Your task to perform on an android device: turn on the 12-hour format for clock Image 0: 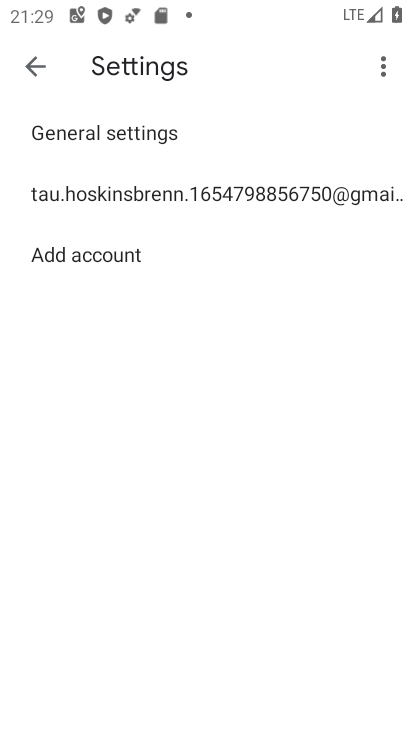
Step 0: press home button
Your task to perform on an android device: turn on the 12-hour format for clock Image 1: 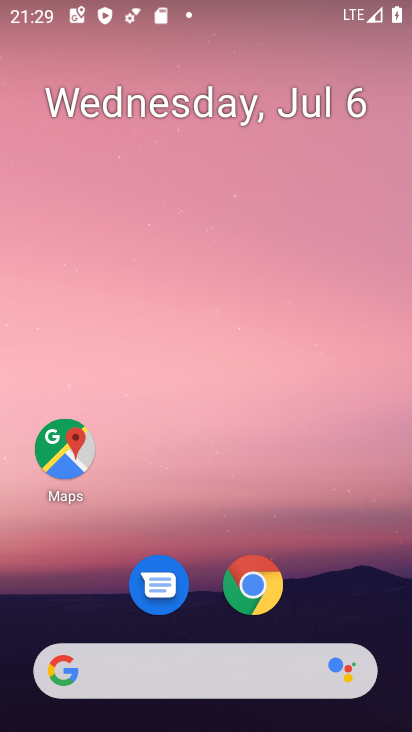
Step 1: drag from (199, 503) to (238, 0)
Your task to perform on an android device: turn on the 12-hour format for clock Image 2: 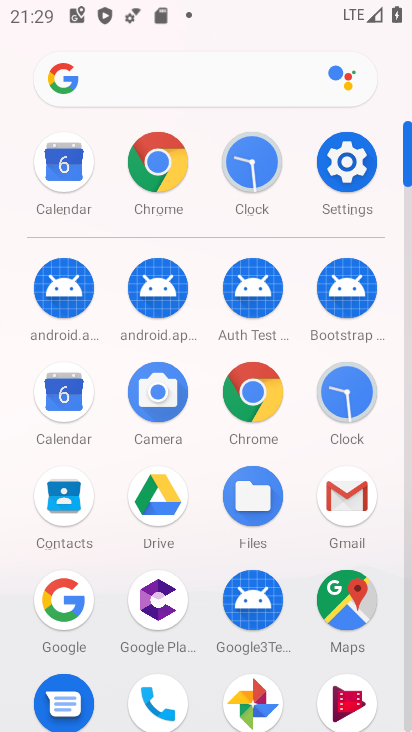
Step 2: click (362, 383)
Your task to perform on an android device: turn on the 12-hour format for clock Image 3: 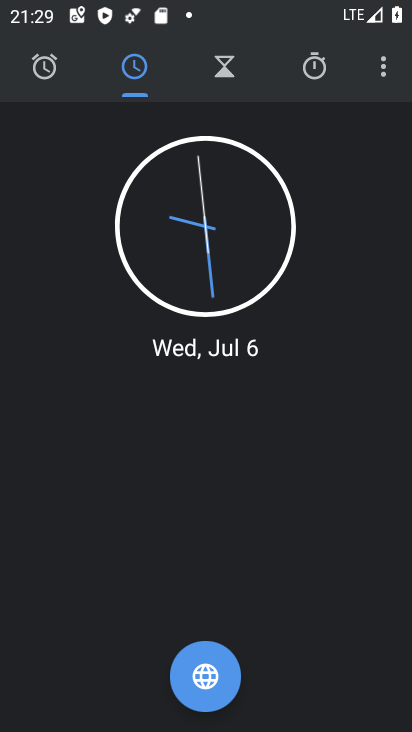
Step 3: click (386, 71)
Your task to perform on an android device: turn on the 12-hour format for clock Image 4: 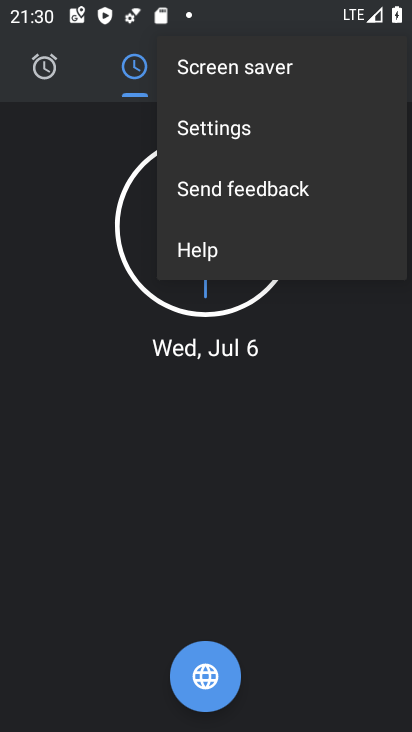
Step 4: click (303, 127)
Your task to perform on an android device: turn on the 12-hour format for clock Image 5: 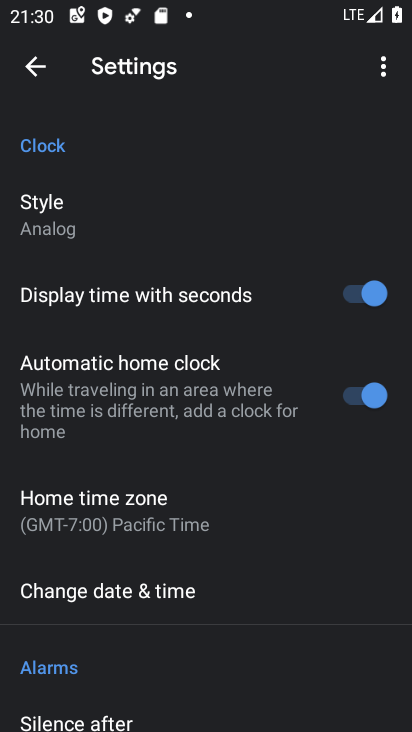
Step 5: drag from (285, 560) to (328, 310)
Your task to perform on an android device: turn on the 12-hour format for clock Image 6: 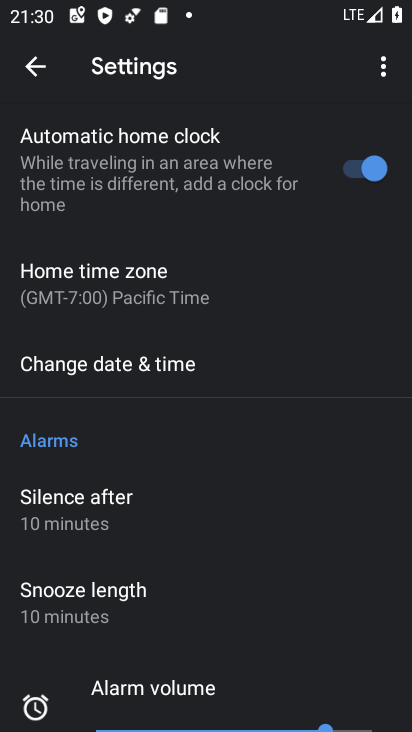
Step 6: click (250, 375)
Your task to perform on an android device: turn on the 12-hour format for clock Image 7: 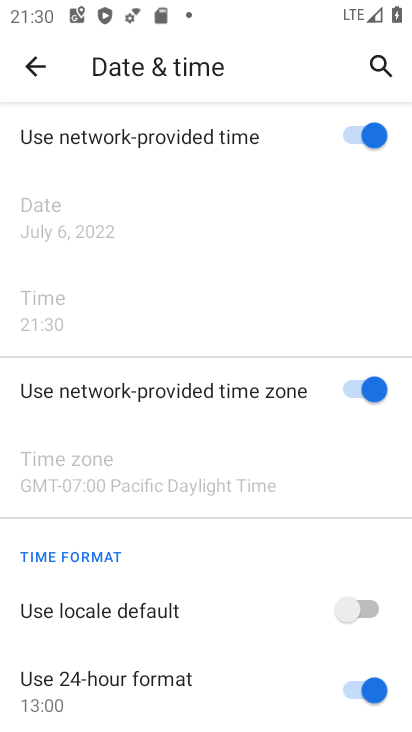
Step 7: click (350, 689)
Your task to perform on an android device: turn on the 12-hour format for clock Image 8: 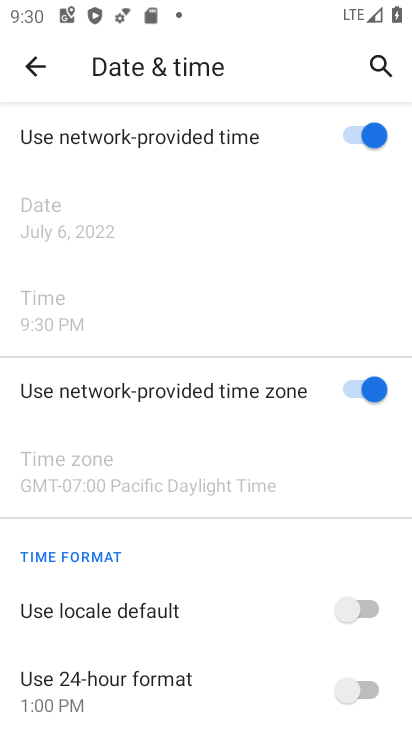
Step 8: click (372, 606)
Your task to perform on an android device: turn on the 12-hour format for clock Image 9: 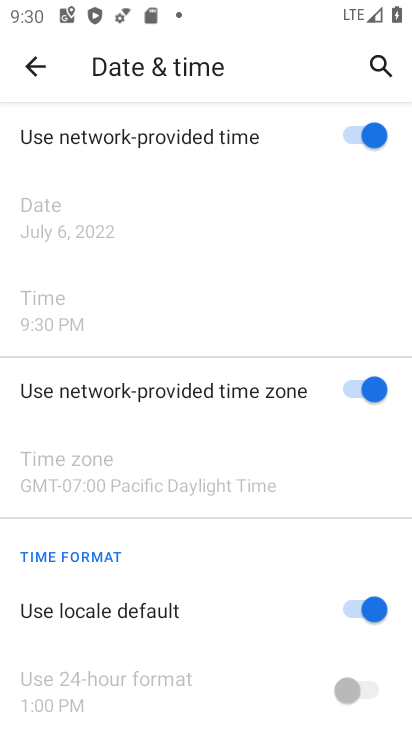
Step 9: task complete